Your task to perform on an android device: turn pop-ups on in chrome Image 0: 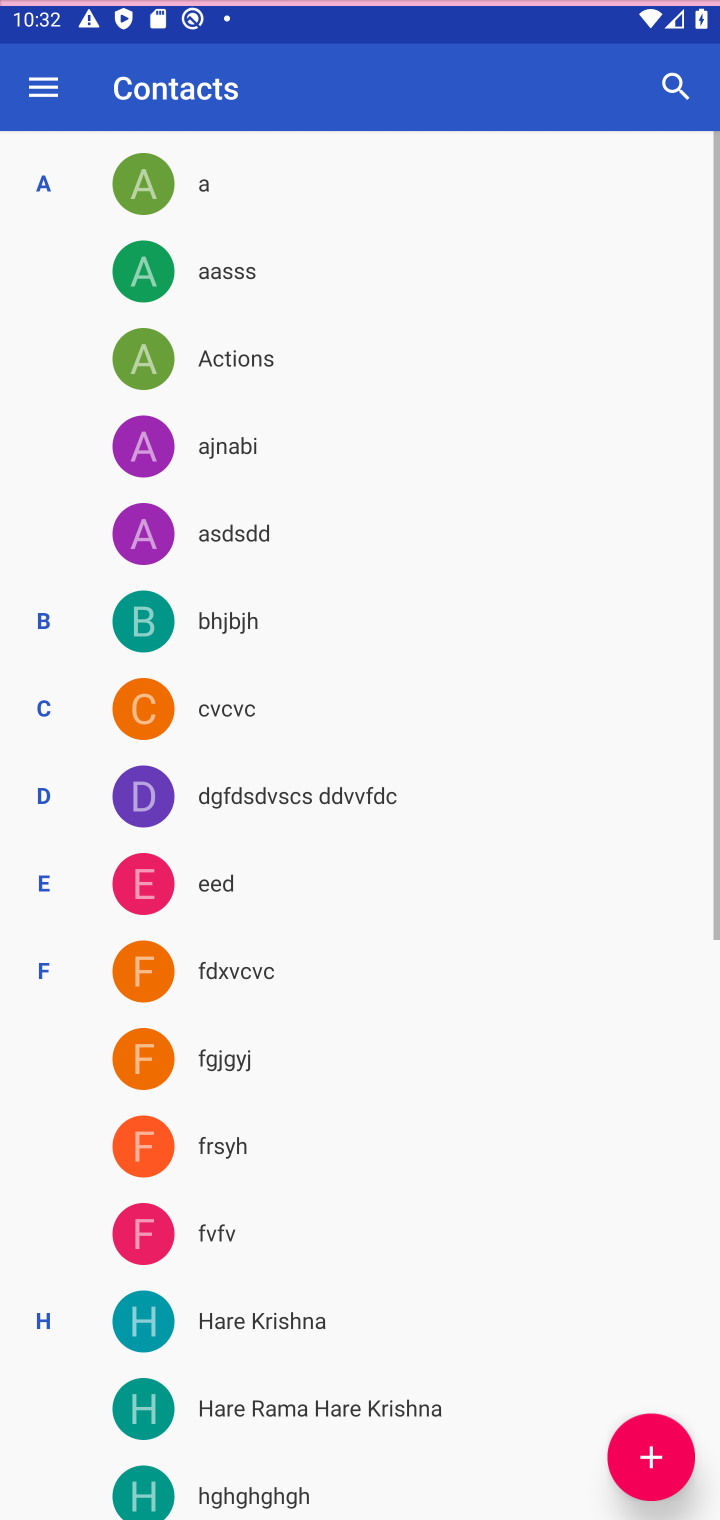
Step 0: press home button
Your task to perform on an android device: turn pop-ups on in chrome Image 1: 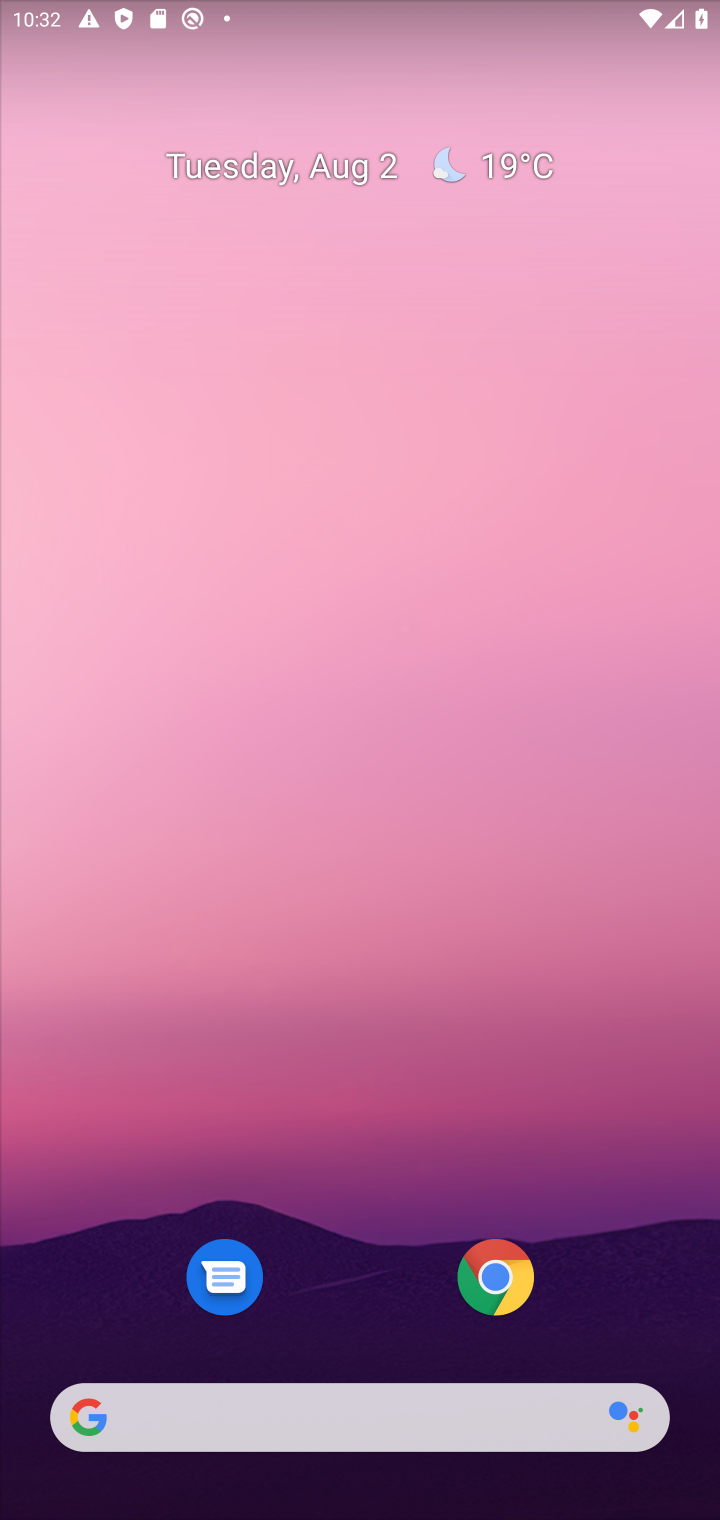
Step 1: click (485, 1263)
Your task to perform on an android device: turn pop-ups on in chrome Image 2: 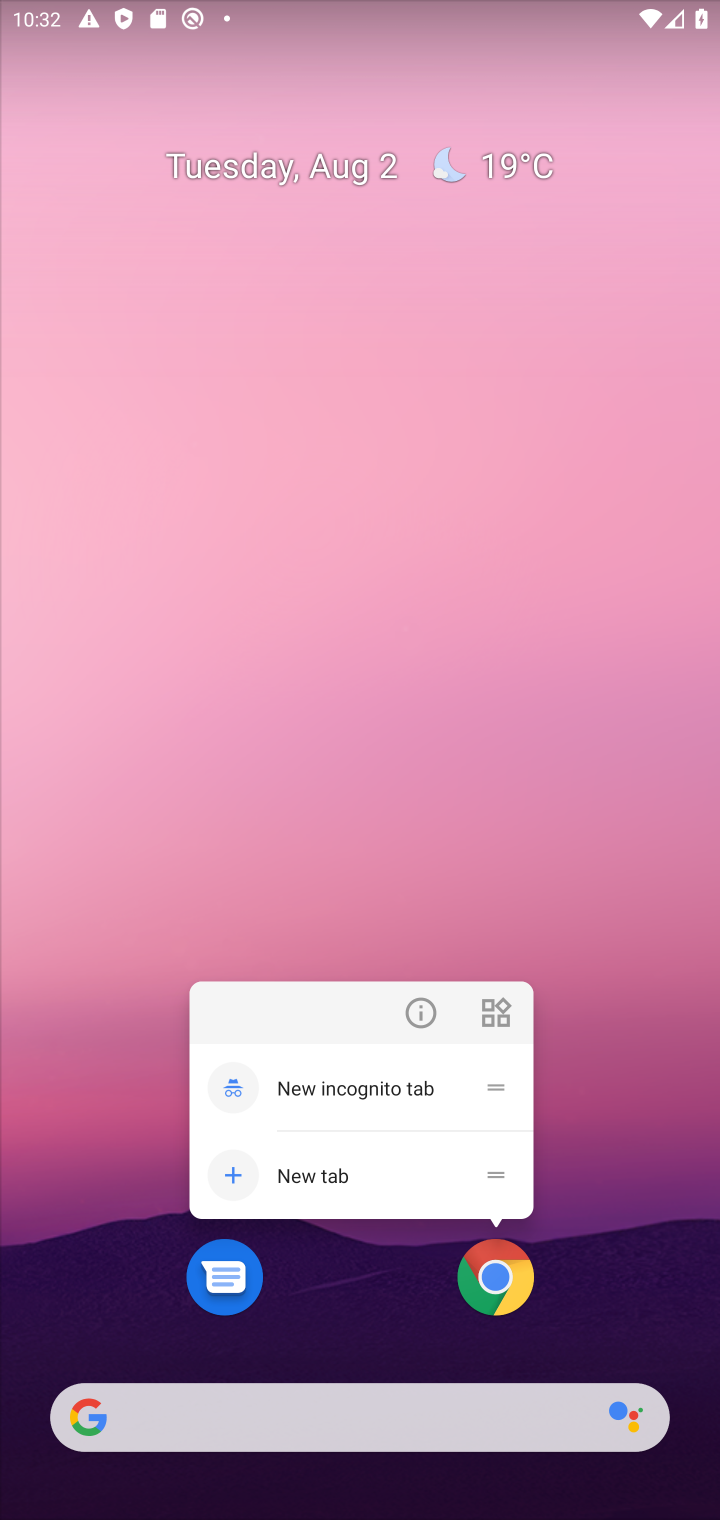
Step 2: click (490, 1267)
Your task to perform on an android device: turn pop-ups on in chrome Image 3: 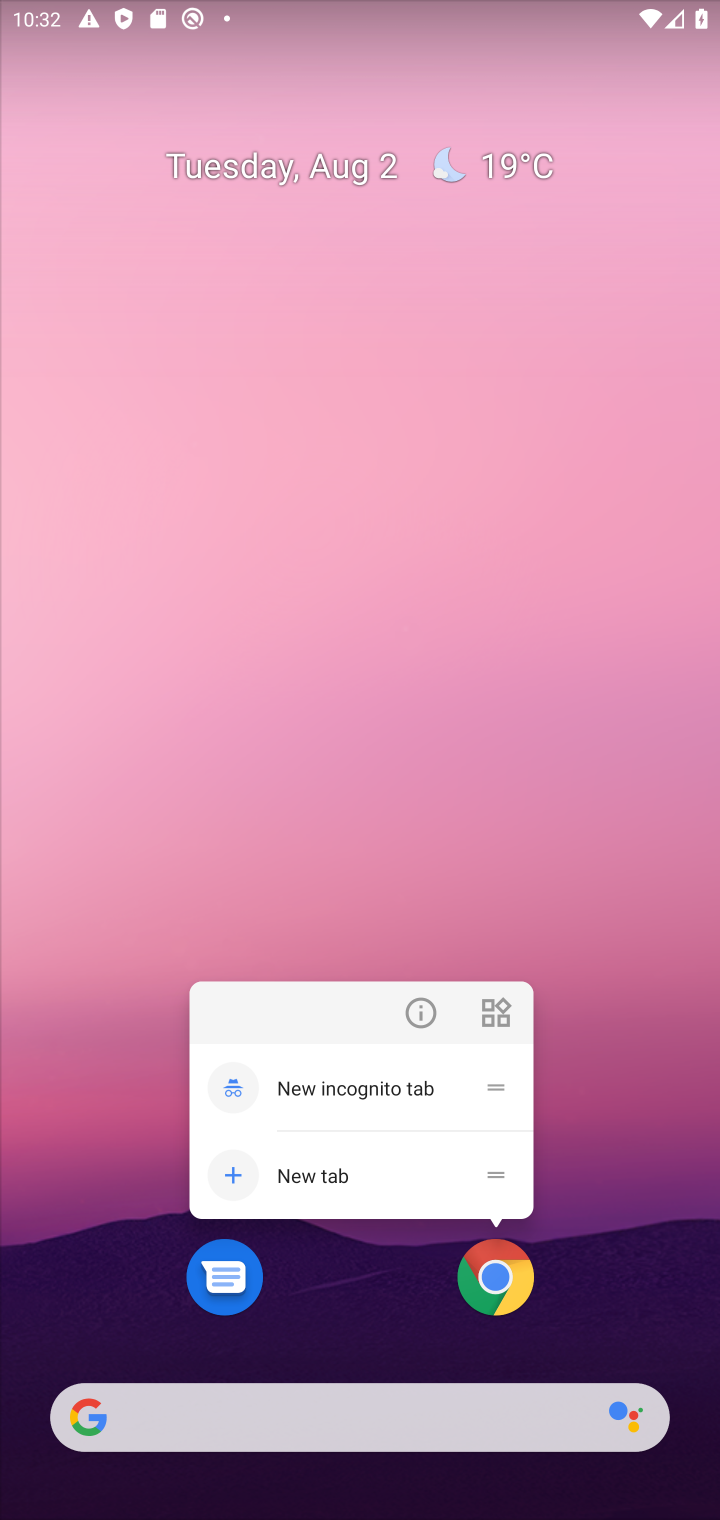
Step 3: click (490, 1267)
Your task to perform on an android device: turn pop-ups on in chrome Image 4: 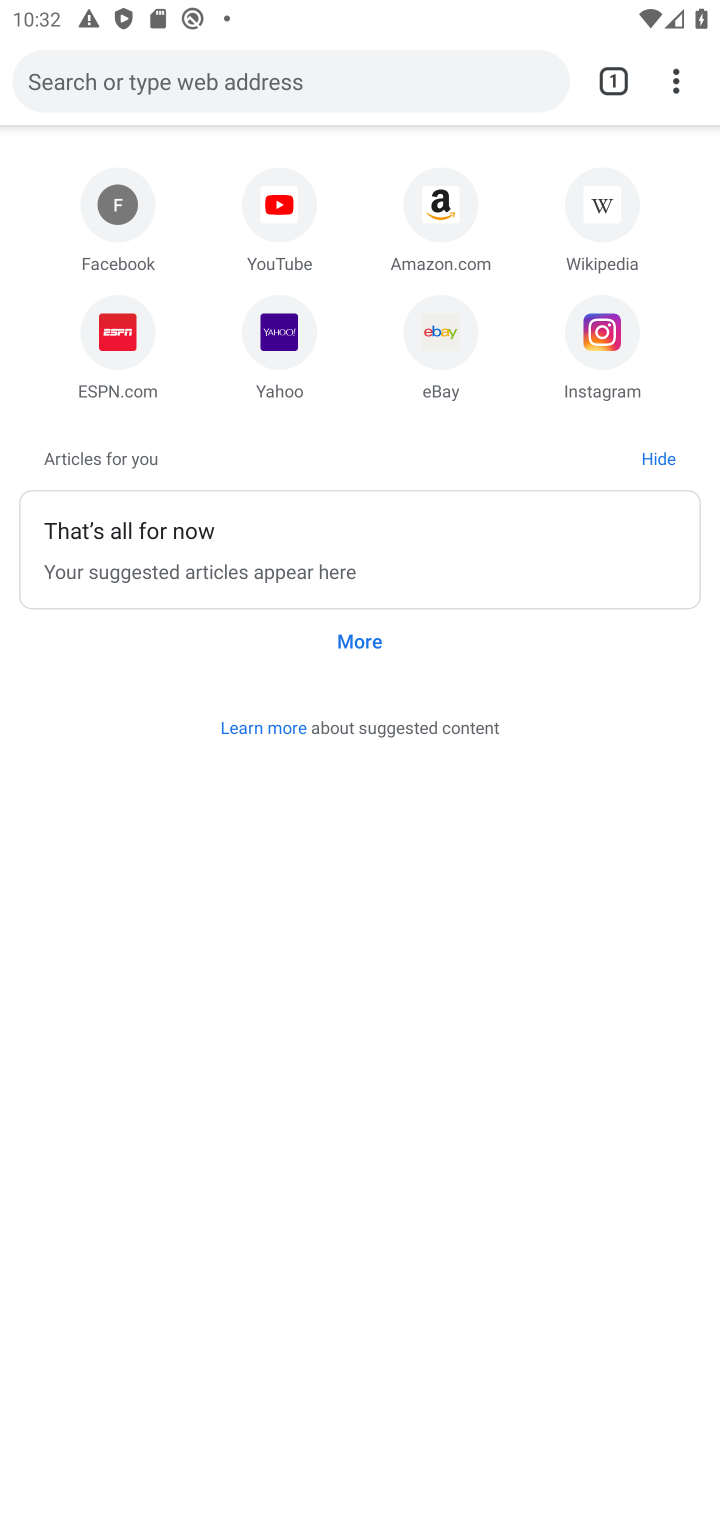
Step 4: click (677, 71)
Your task to perform on an android device: turn pop-ups on in chrome Image 5: 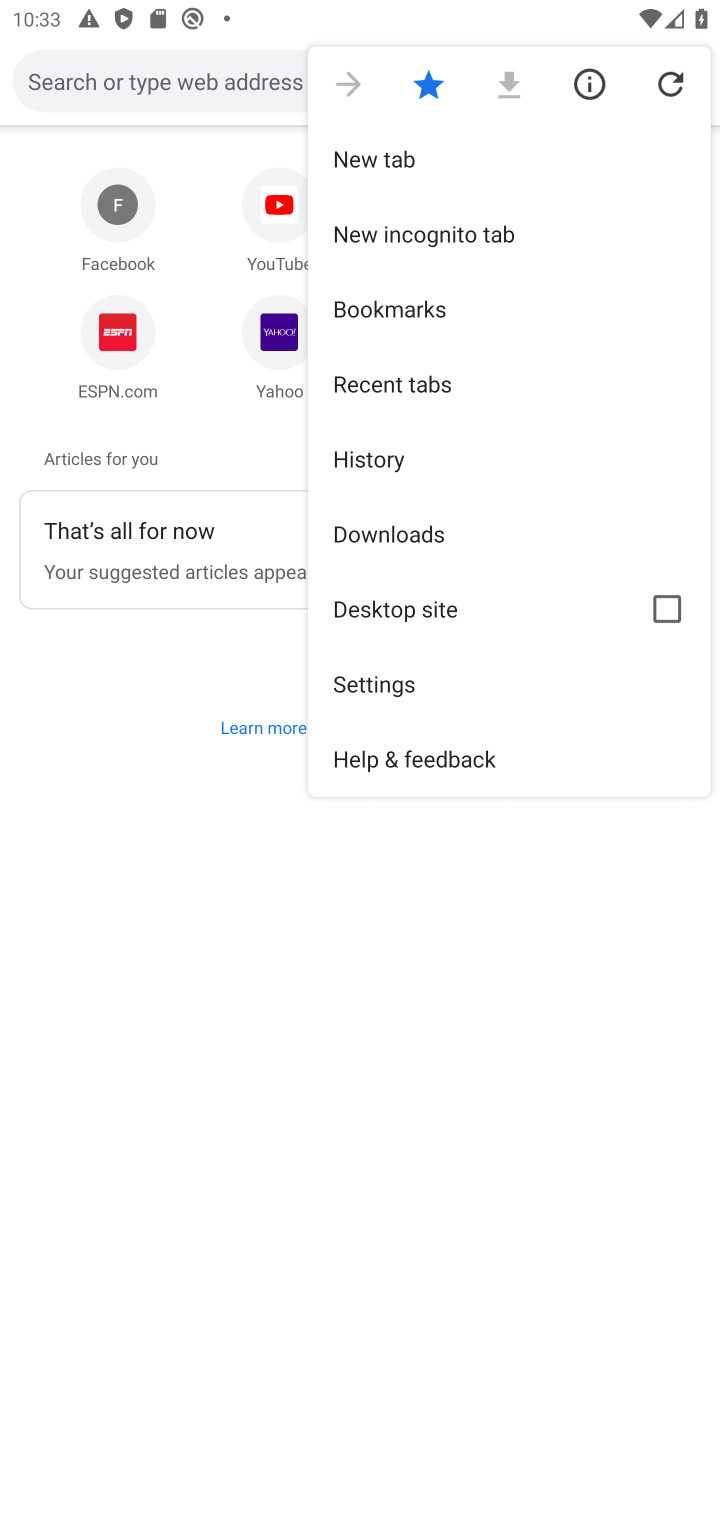
Step 5: click (414, 680)
Your task to perform on an android device: turn pop-ups on in chrome Image 6: 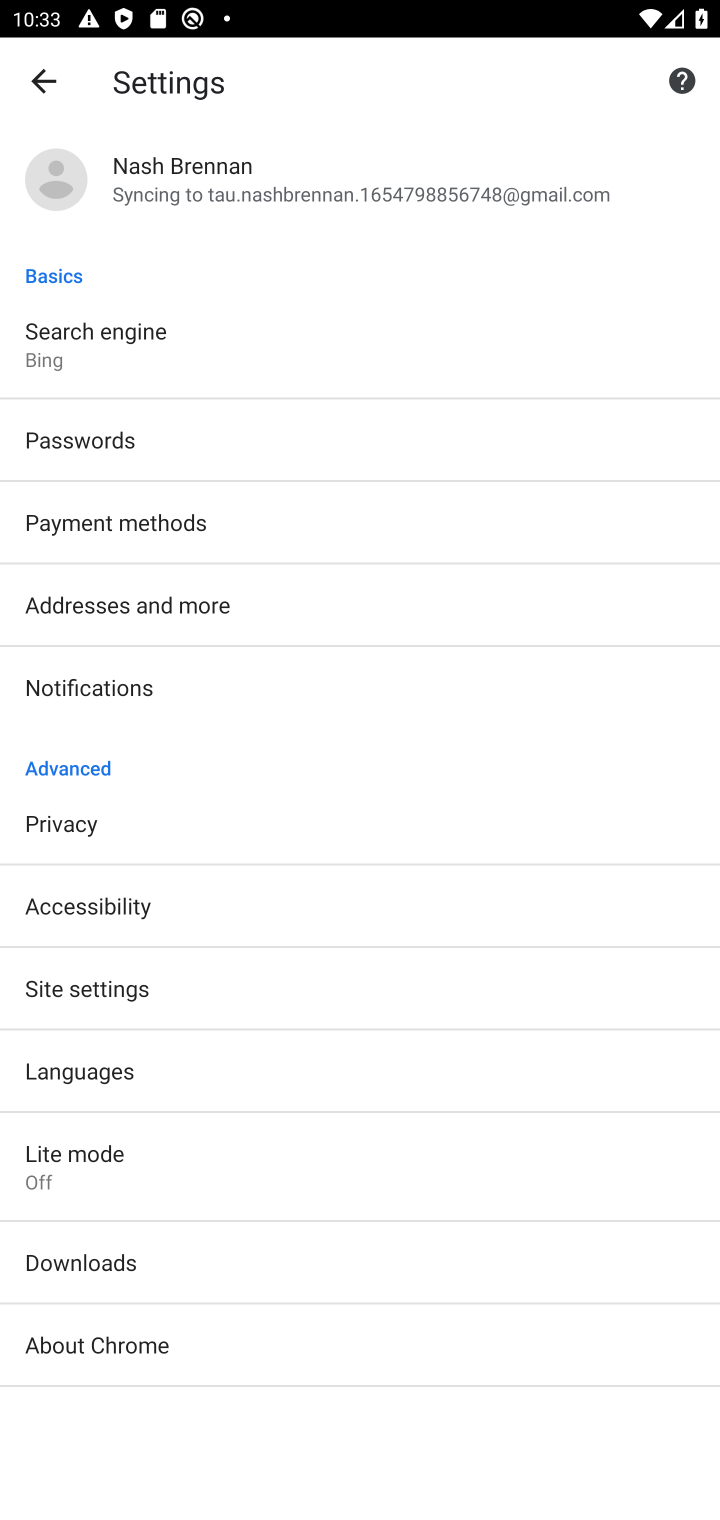
Step 6: click (98, 1000)
Your task to perform on an android device: turn pop-ups on in chrome Image 7: 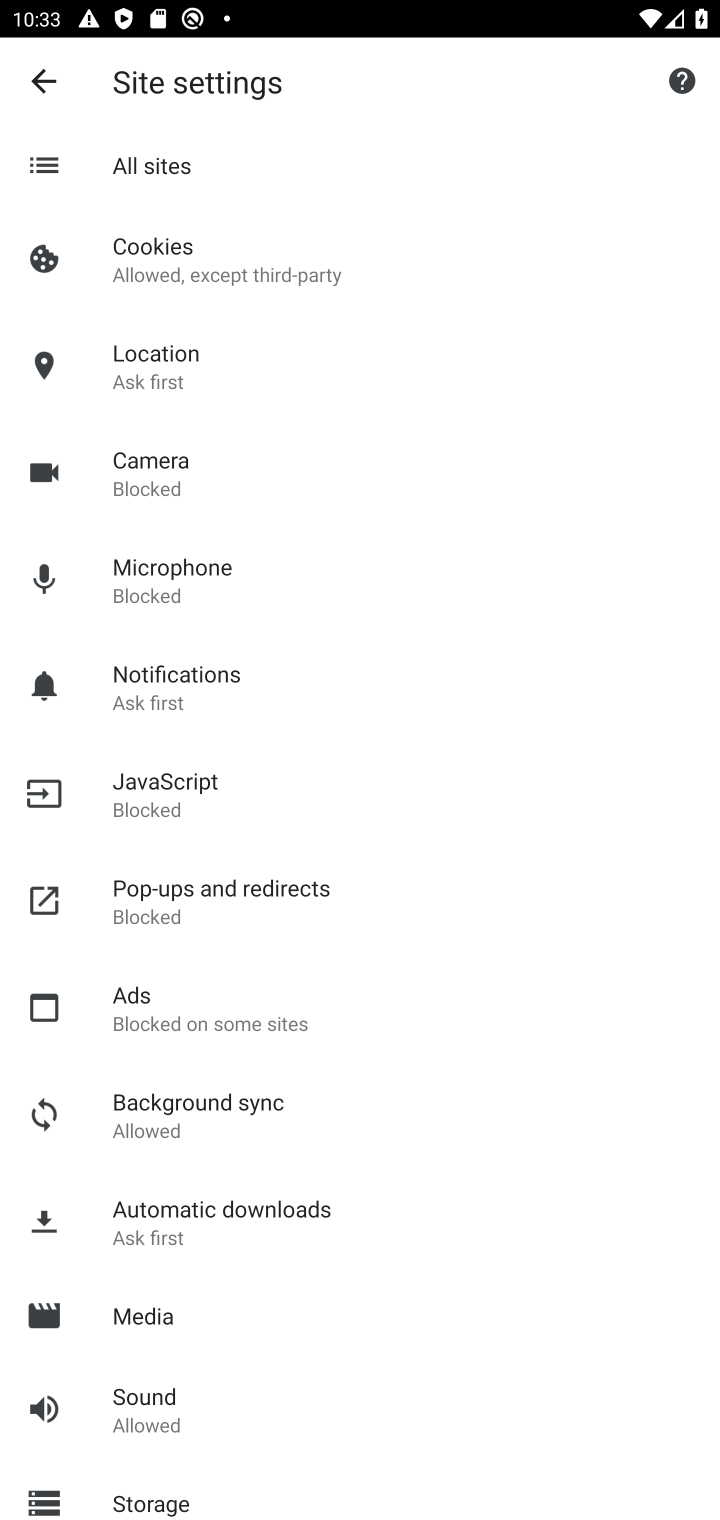
Step 7: click (316, 902)
Your task to perform on an android device: turn pop-ups on in chrome Image 8: 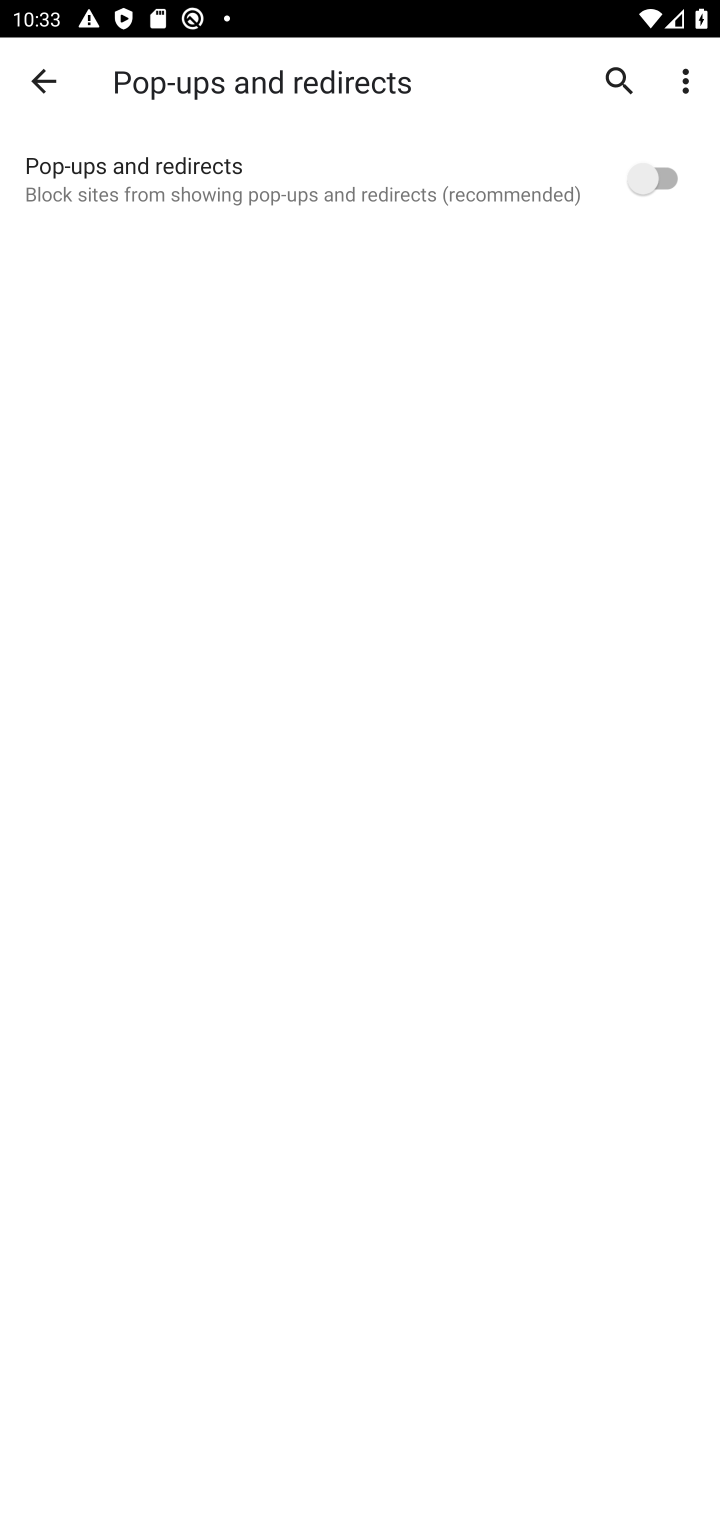
Step 8: click (665, 181)
Your task to perform on an android device: turn pop-ups on in chrome Image 9: 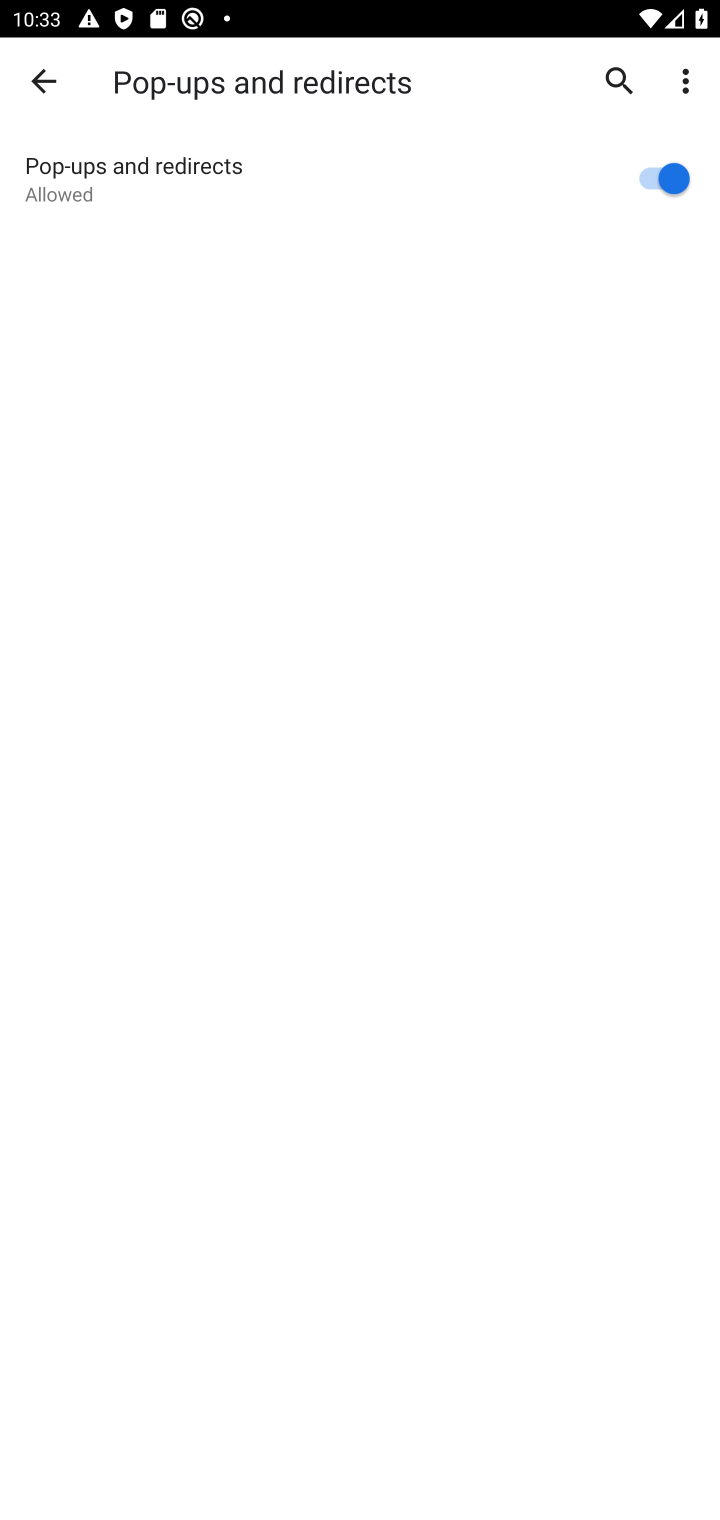
Step 9: task complete